Your task to perform on an android device: Go to Maps Image 0: 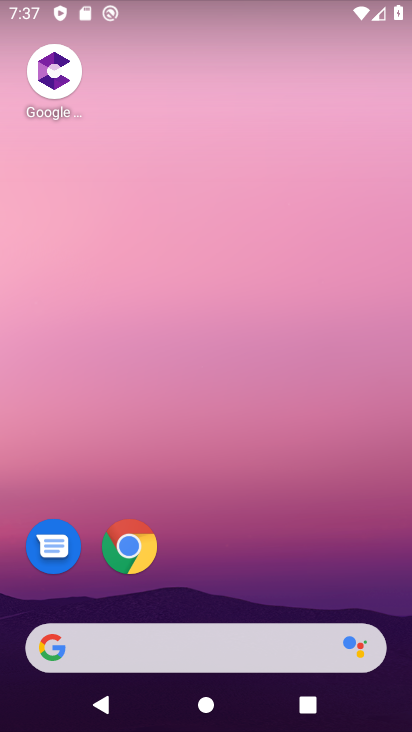
Step 0: drag from (219, 547) to (265, 1)
Your task to perform on an android device: Go to Maps Image 1: 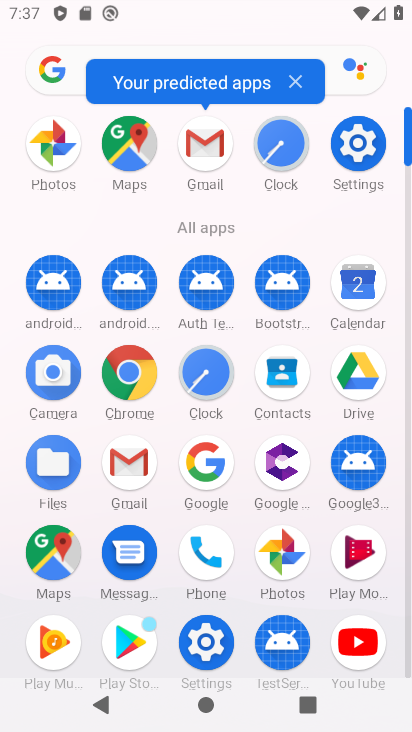
Step 1: click (127, 142)
Your task to perform on an android device: Go to Maps Image 2: 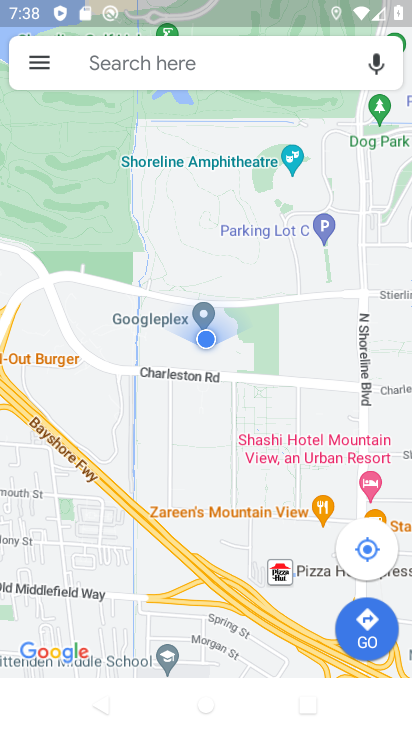
Step 2: task complete